Your task to perform on an android device: turn off smart reply in the gmail app Image 0: 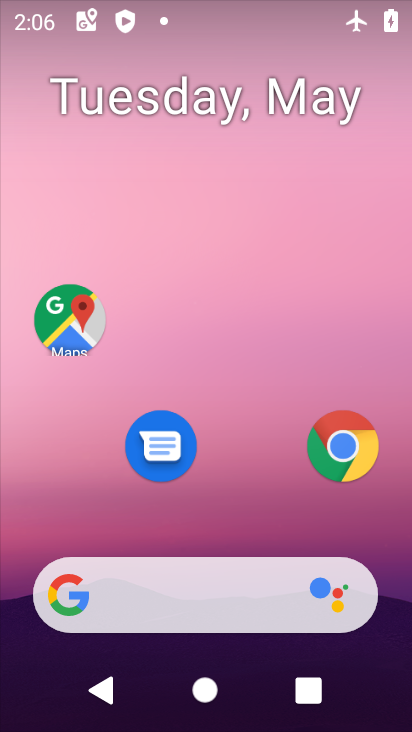
Step 0: drag from (226, 562) to (182, 58)
Your task to perform on an android device: turn off smart reply in the gmail app Image 1: 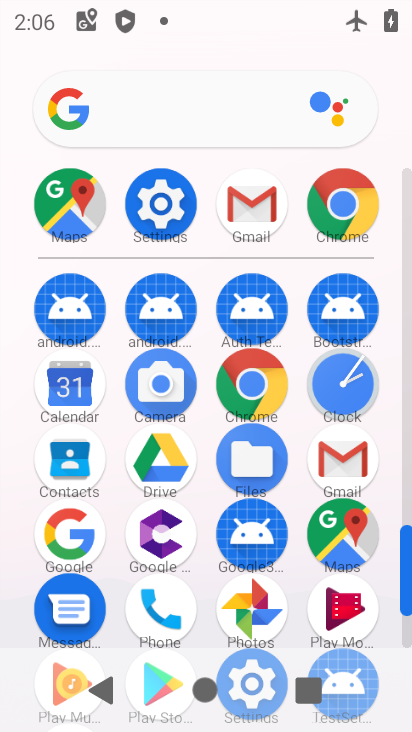
Step 1: click (350, 474)
Your task to perform on an android device: turn off smart reply in the gmail app Image 2: 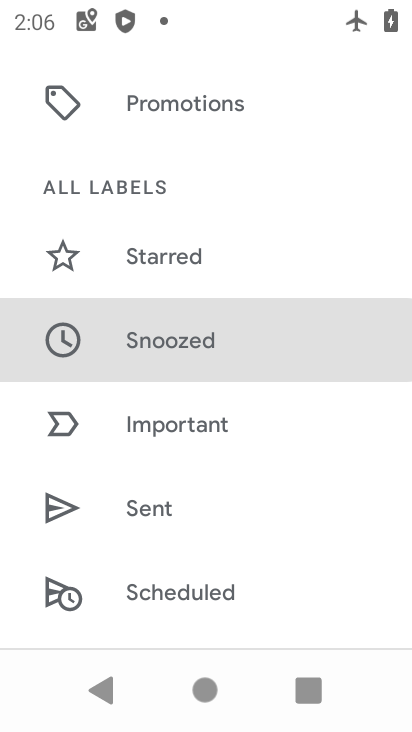
Step 2: drag from (202, 501) to (181, 254)
Your task to perform on an android device: turn off smart reply in the gmail app Image 3: 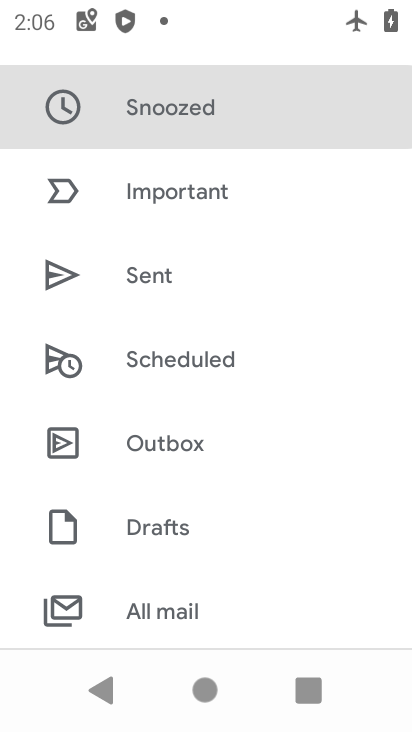
Step 3: drag from (209, 544) to (167, 50)
Your task to perform on an android device: turn off smart reply in the gmail app Image 4: 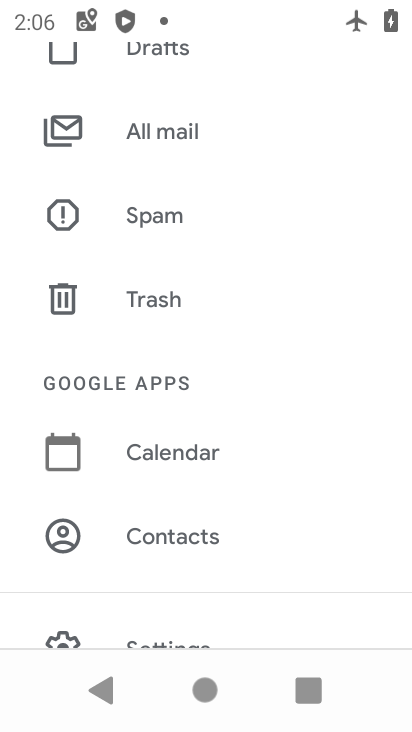
Step 4: drag from (279, 547) to (245, 172)
Your task to perform on an android device: turn off smart reply in the gmail app Image 5: 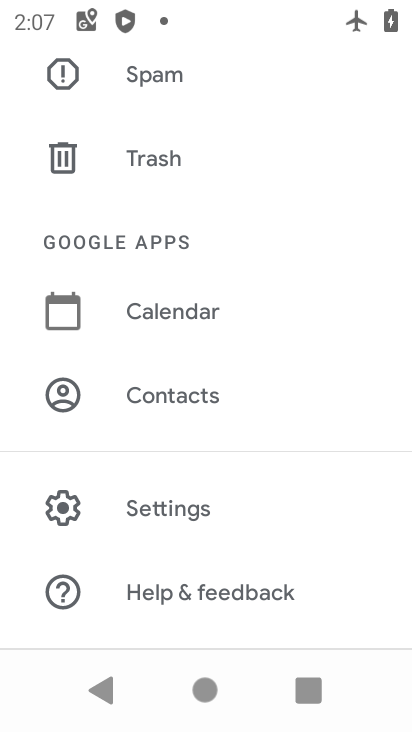
Step 5: click (167, 511)
Your task to perform on an android device: turn off smart reply in the gmail app Image 6: 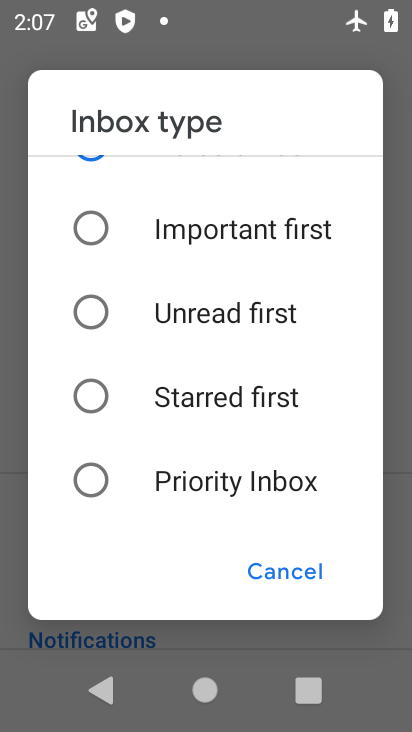
Step 6: click (290, 592)
Your task to perform on an android device: turn off smart reply in the gmail app Image 7: 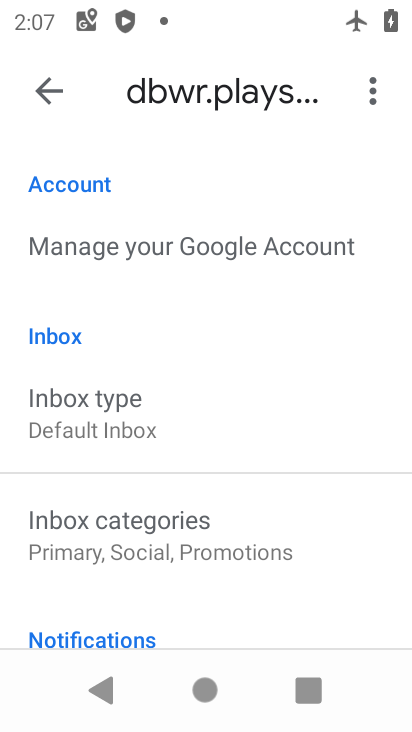
Step 7: drag from (226, 558) to (207, 42)
Your task to perform on an android device: turn off smart reply in the gmail app Image 8: 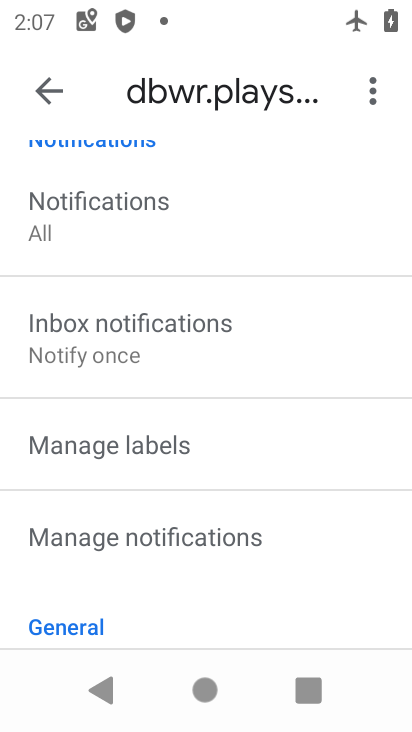
Step 8: drag from (219, 520) to (186, 139)
Your task to perform on an android device: turn off smart reply in the gmail app Image 9: 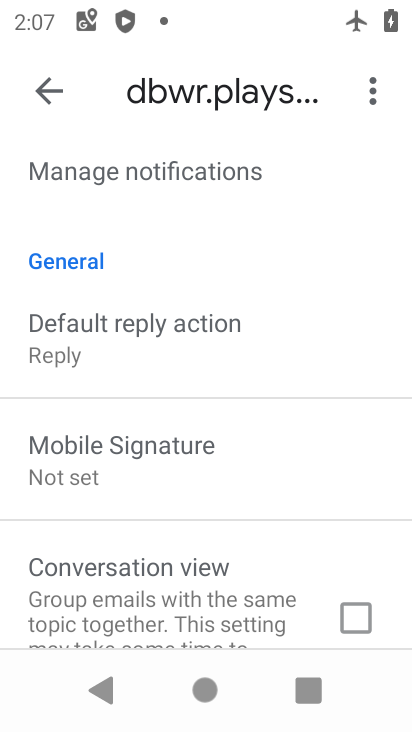
Step 9: drag from (188, 558) to (153, 226)
Your task to perform on an android device: turn off smart reply in the gmail app Image 10: 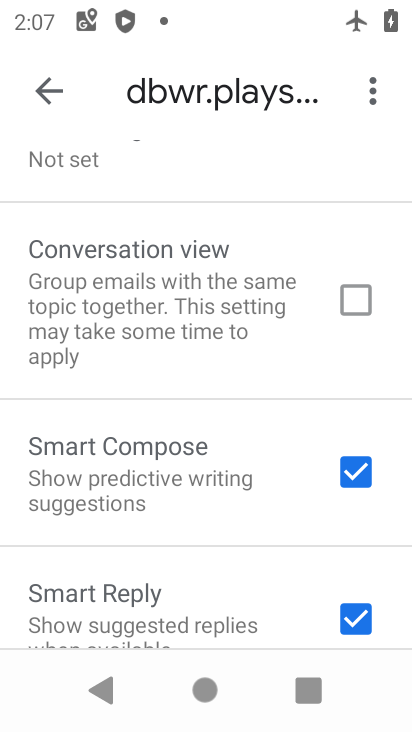
Step 10: click (324, 623)
Your task to perform on an android device: turn off smart reply in the gmail app Image 11: 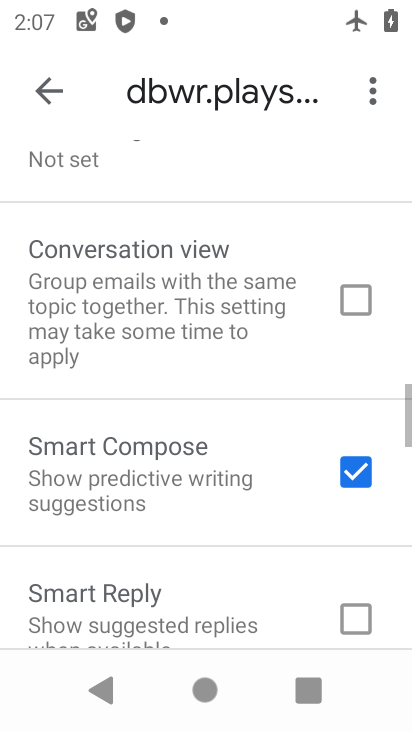
Step 11: task complete